Your task to perform on an android device: change the clock style Image 0: 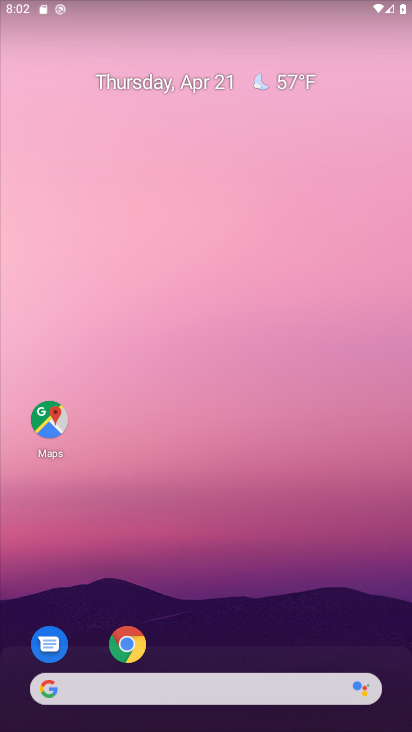
Step 0: drag from (231, 636) to (211, 14)
Your task to perform on an android device: change the clock style Image 1: 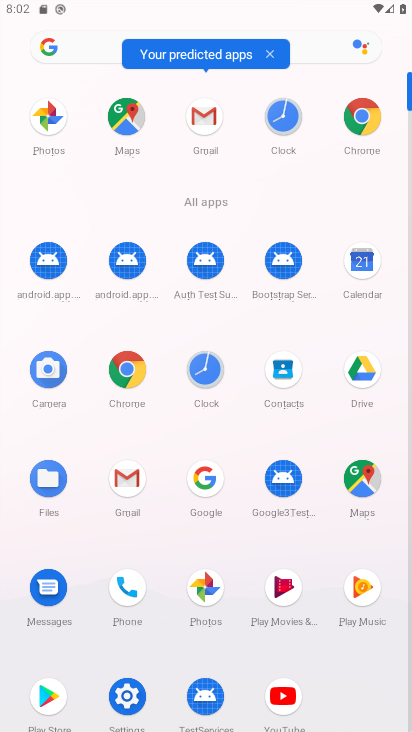
Step 1: click (284, 122)
Your task to perform on an android device: change the clock style Image 2: 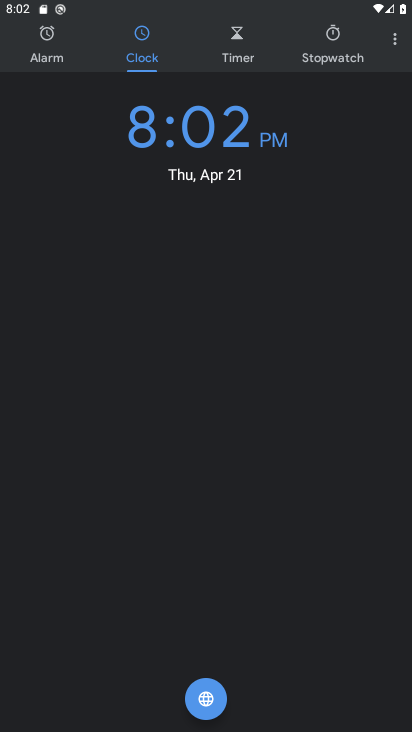
Step 2: click (389, 46)
Your task to perform on an android device: change the clock style Image 3: 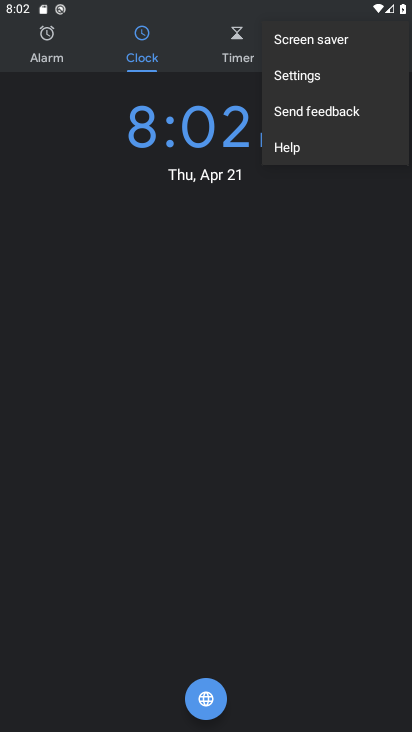
Step 3: click (307, 76)
Your task to perform on an android device: change the clock style Image 4: 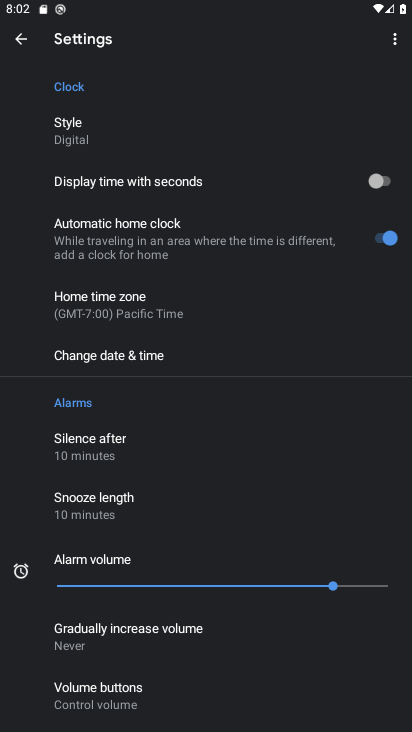
Step 4: click (123, 129)
Your task to perform on an android device: change the clock style Image 5: 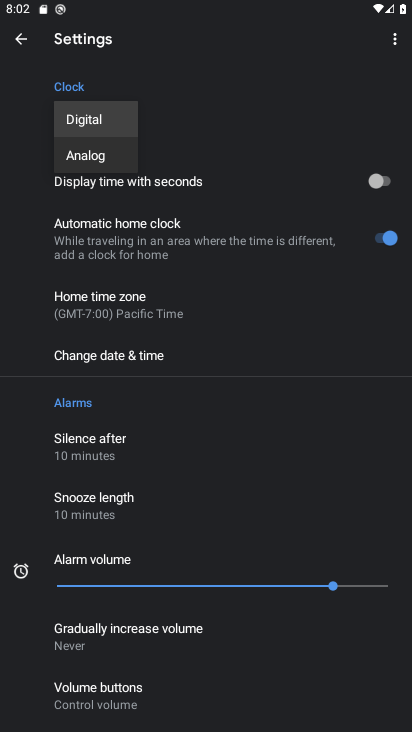
Step 5: click (116, 153)
Your task to perform on an android device: change the clock style Image 6: 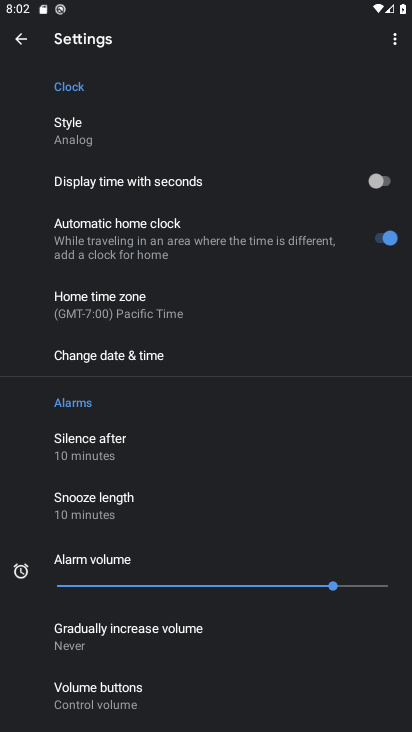
Step 6: task complete